Your task to perform on an android device: Go to notification settings Image 0: 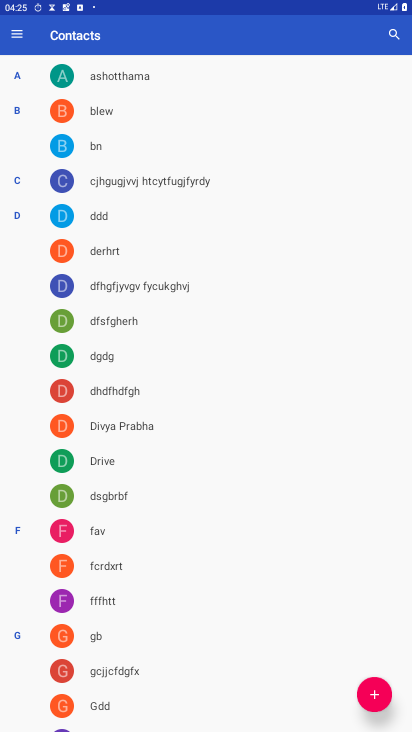
Step 0: press home button
Your task to perform on an android device: Go to notification settings Image 1: 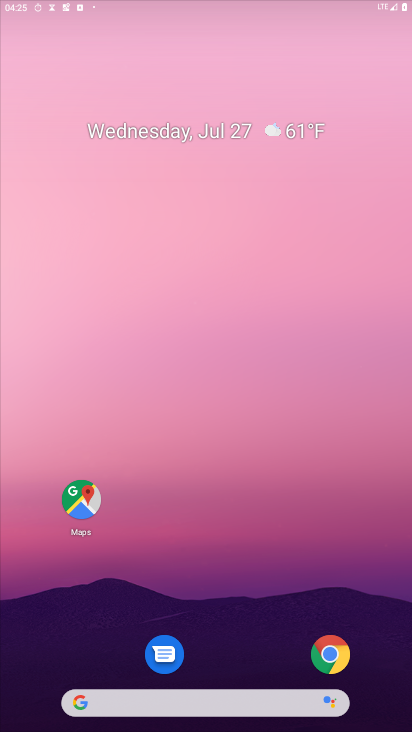
Step 1: drag from (211, 706) to (238, 21)
Your task to perform on an android device: Go to notification settings Image 2: 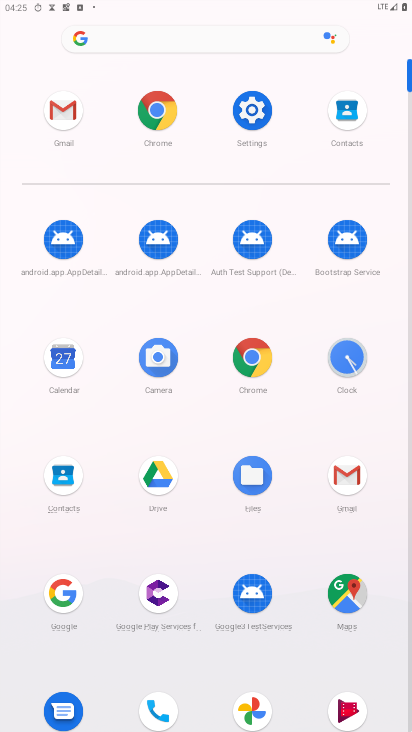
Step 2: click (263, 105)
Your task to perform on an android device: Go to notification settings Image 3: 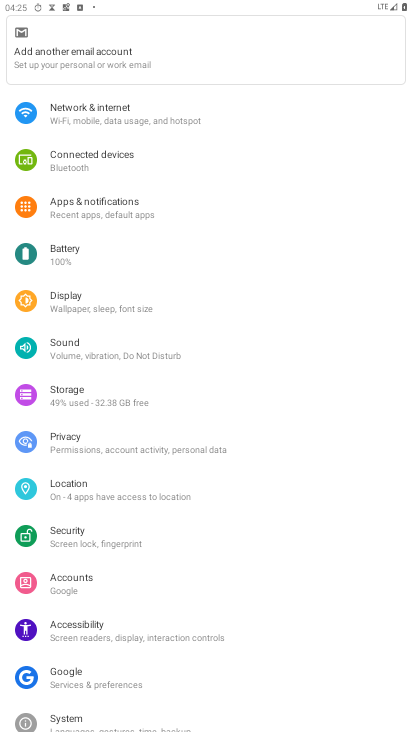
Step 3: click (123, 210)
Your task to perform on an android device: Go to notification settings Image 4: 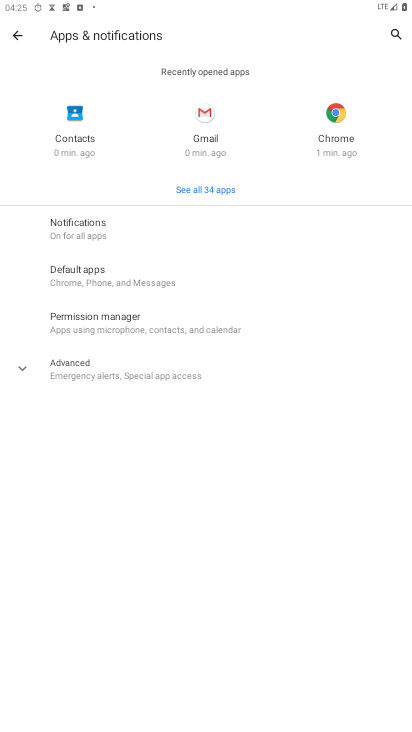
Step 4: click (105, 230)
Your task to perform on an android device: Go to notification settings Image 5: 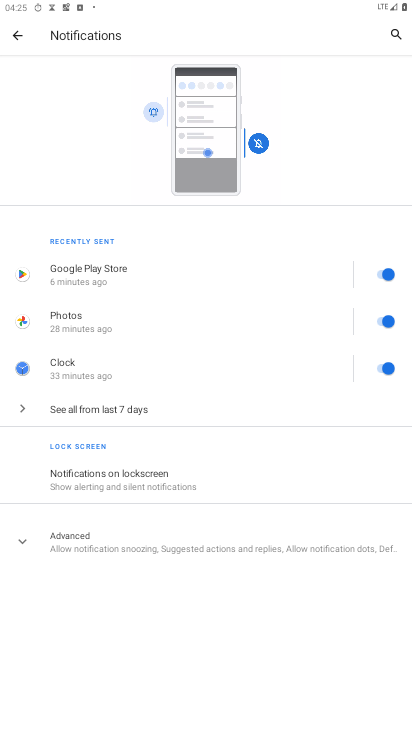
Step 5: task complete